Your task to perform on an android device: open a bookmark in the chrome app Image 0: 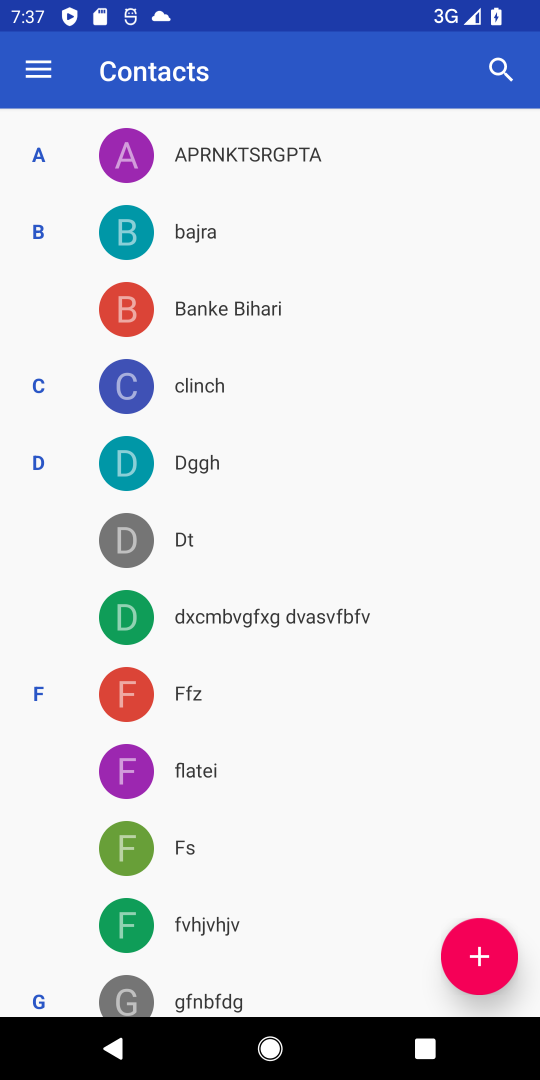
Step 0: press home button
Your task to perform on an android device: open a bookmark in the chrome app Image 1: 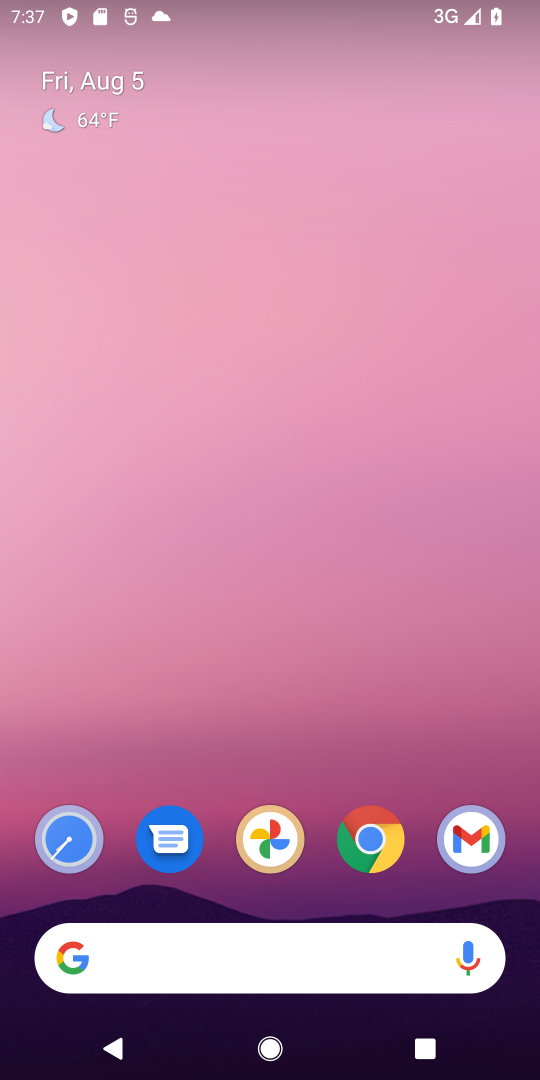
Step 1: click (374, 842)
Your task to perform on an android device: open a bookmark in the chrome app Image 2: 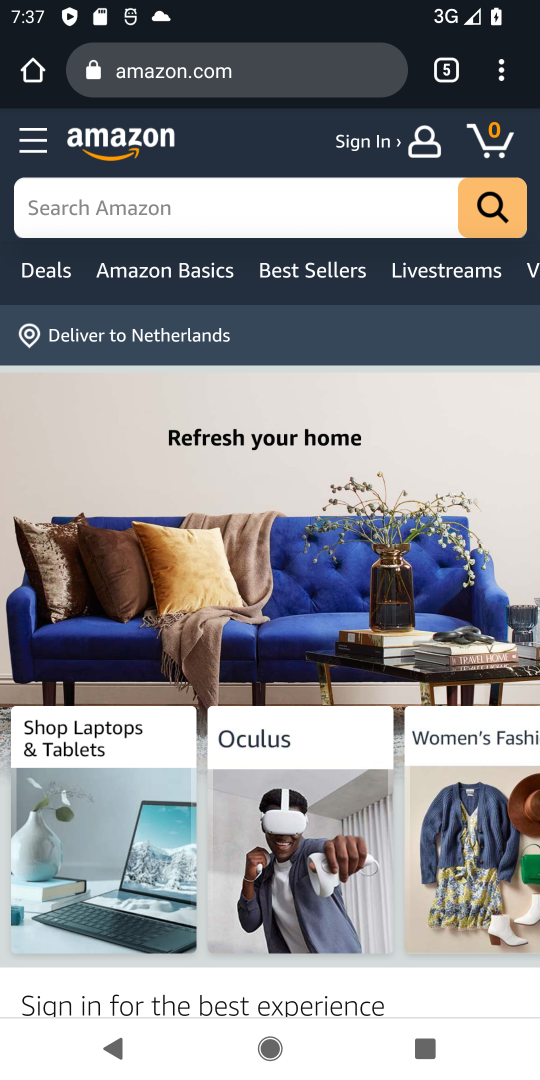
Step 2: drag from (501, 81) to (332, 508)
Your task to perform on an android device: open a bookmark in the chrome app Image 3: 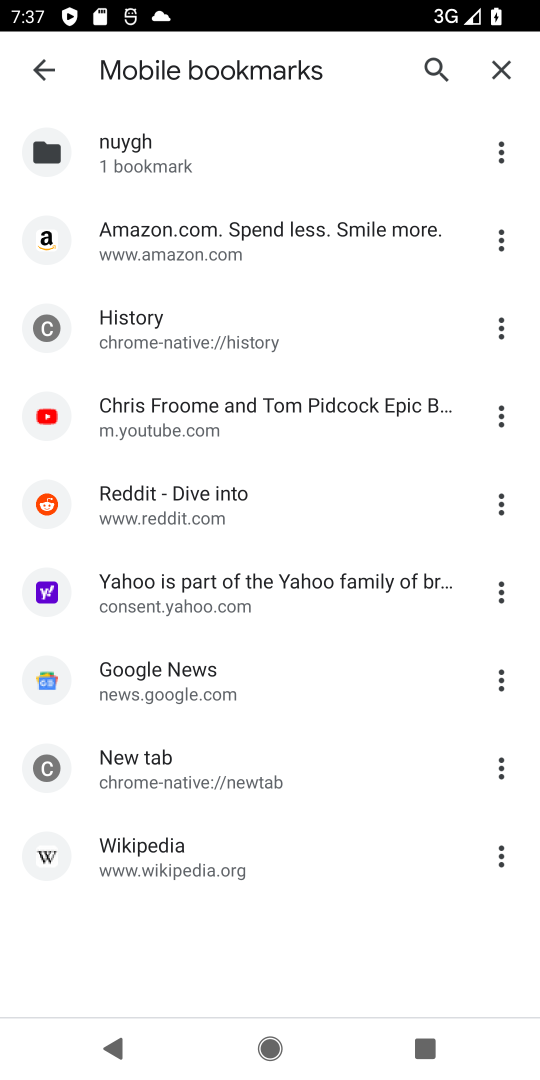
Step 3: click (169, 236)
Your task to perform on an android device: open a bookmark in the chrome app Image 4: 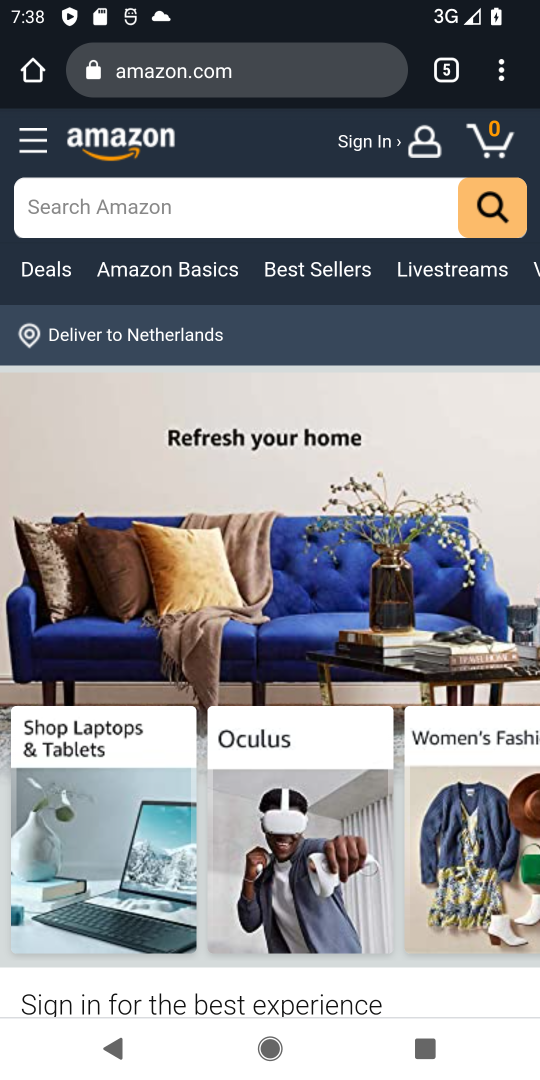
Step 4: task complete